Your task to perform on an android device: visit the assistant section in the google photos Image 0: 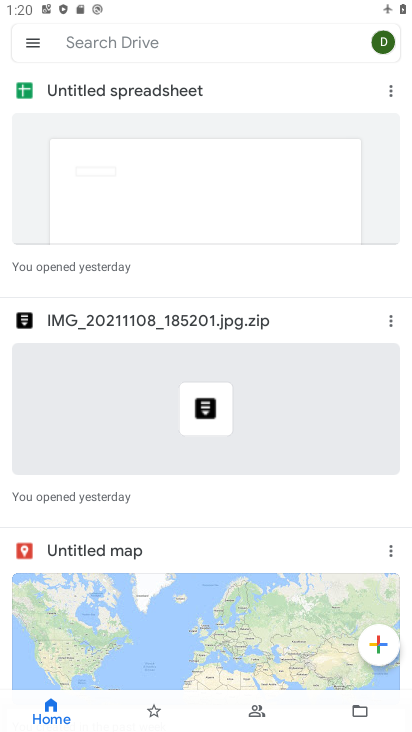
Step 0: press home button
Your task to perform on an android device: visit the assistant section in the google photos Image 1: 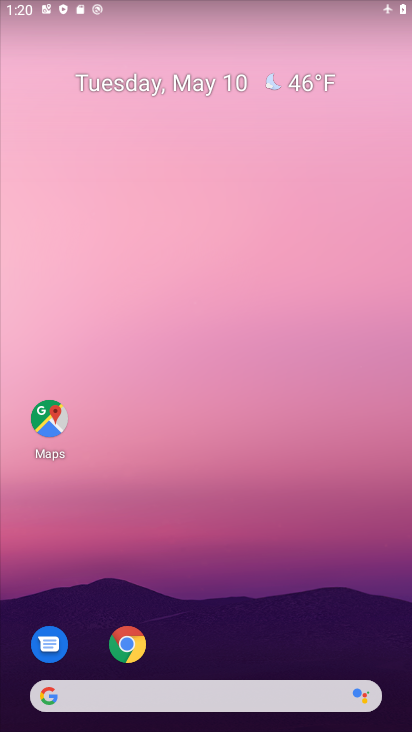
Step 1: drag from (258, 582) to (253, 242)
Your task to perform on an android device: visit the assistant section in the google photos Image 2: 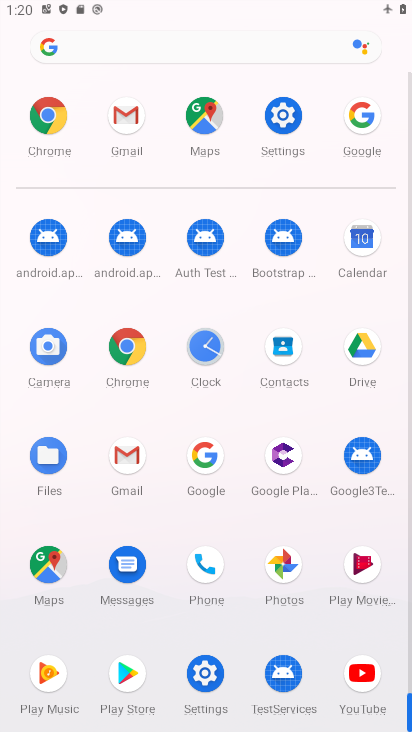
Step 2: click (282, 576)
Your task to perform on an android device: visit the assistant section in the google photos Image 3: 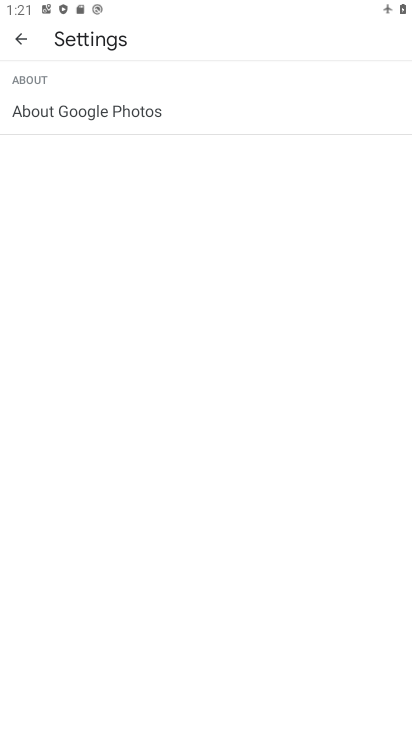
Step 3: click (16, 37)
Your task to perform on an android device: visit the assistant section in the google photos Image 4: 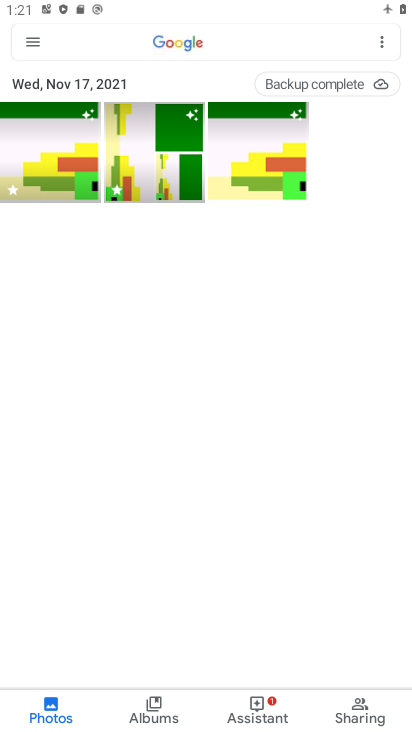
Step 4: click (28, 53)
Your task to perform on an android device: visit the assistant section in the google photos Image 5: 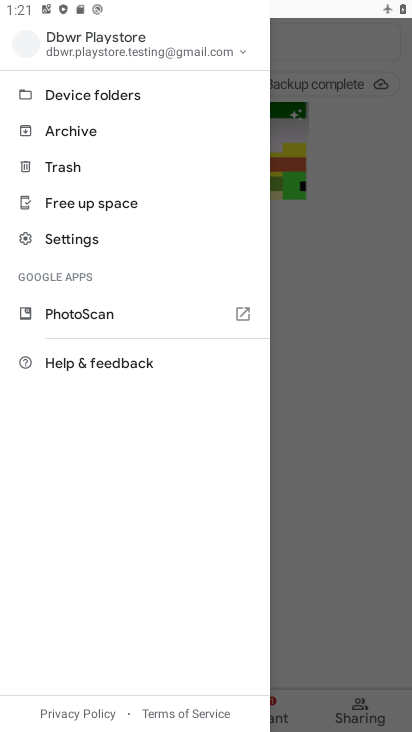
Step 5: click (113, 247)
Your task to perform on an android device: visit the assistant section in the google photos Image 6: 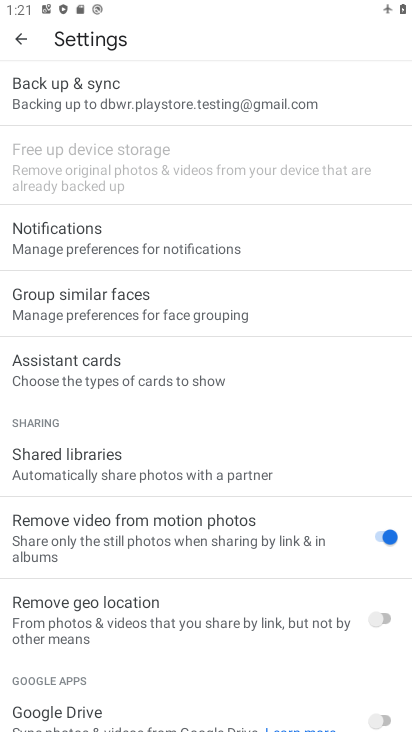
Step 6: drag from (196, 612) to (187, 414)
Your task to perform on an android device: visit the assistant section in the google photos Image 7: 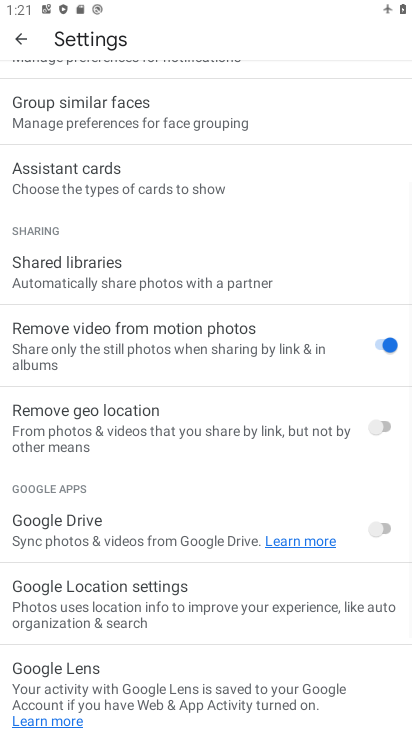
Step 7: click (105, 199)
Your task to perform on an android device: visit the assistant section in the google photos Image 8: 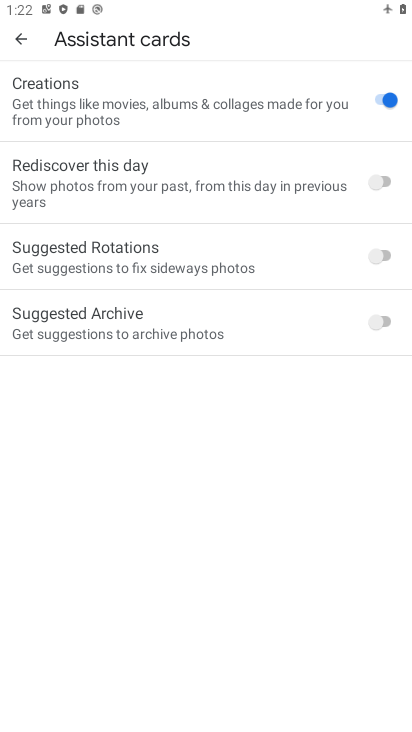
Step 8: task complete